Your task to perform on an android device: check android version Image 0: 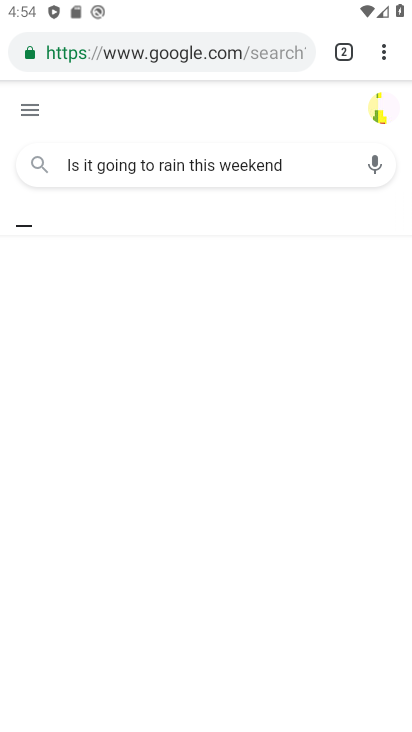
Step 0: press home button
Your task to perform on an android device: check android version Image 1: 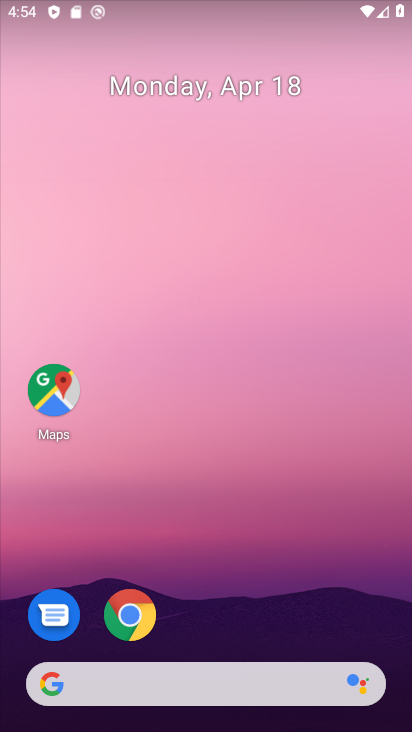
Step 1: drag from (224, 630) to (230, 74)
Your task to perform on an android device: check android version Image 2: 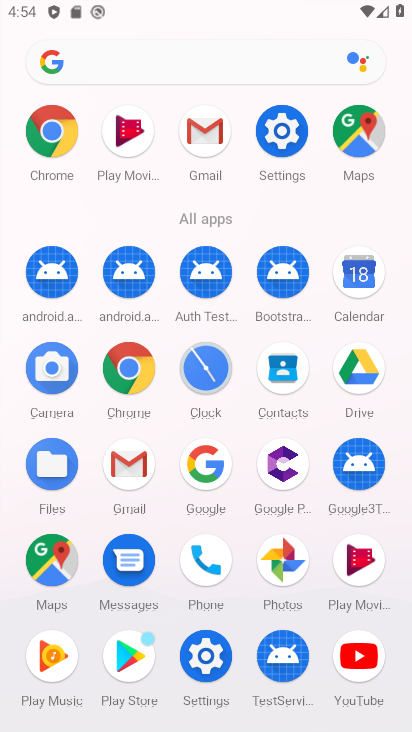
Step 2: click (274, 133)
Your task to perform on an android device: check android version Image 3: 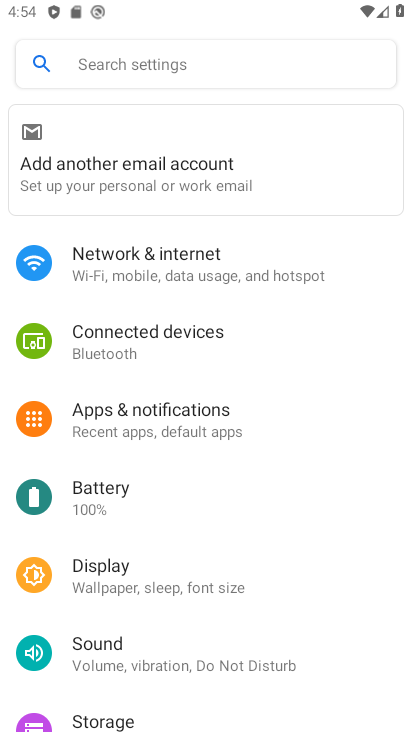
Step 3: drag from (324, 695) to (345, 257)
Your task to perform on an android device: check android version Image 4: 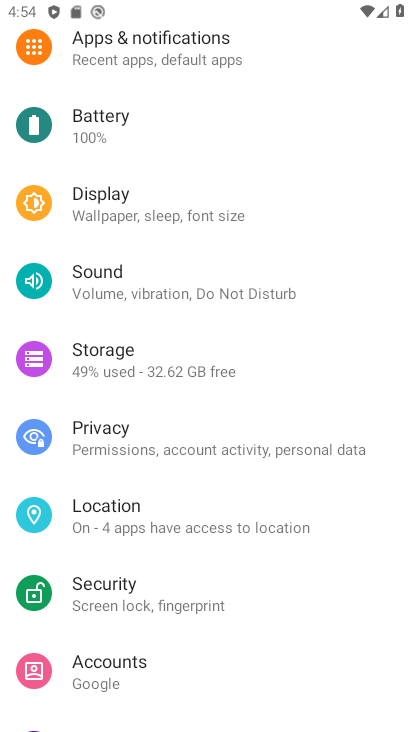
Step 4: drag from (289, 670) to (311, 229)
Your task to perform on an android device: check android version Image 5: 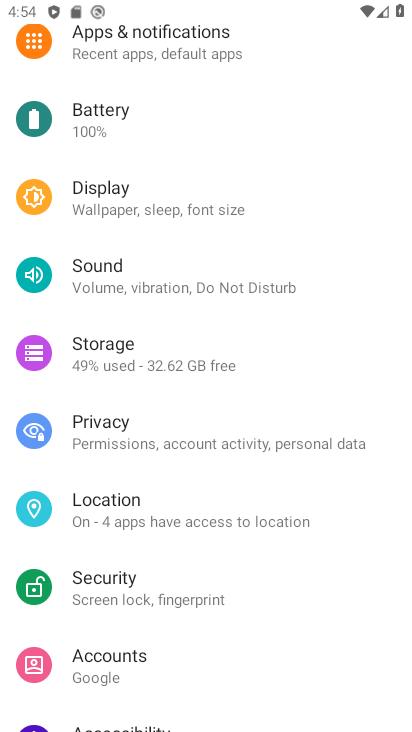
Step 5: drag from (328, 655) to (330, 246)
Your task to perform on an android device: check android version Image 6: 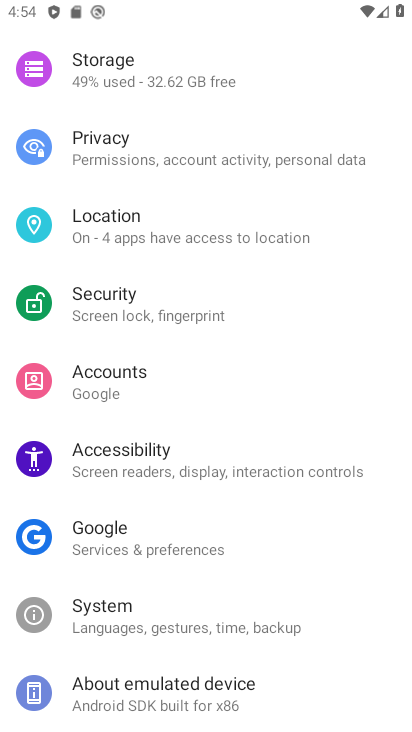
Step 6: click (123, 696)
Your task to perform on an android device: check android version Image 7: 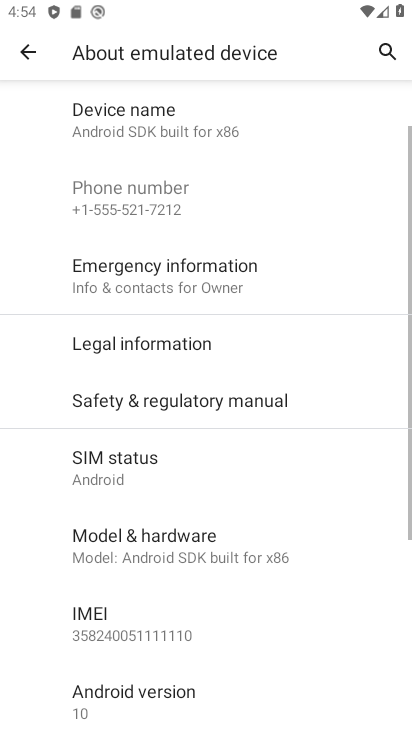
Step 7: click (153, 693)
Your task to perform on an android device: check android version Image 8: 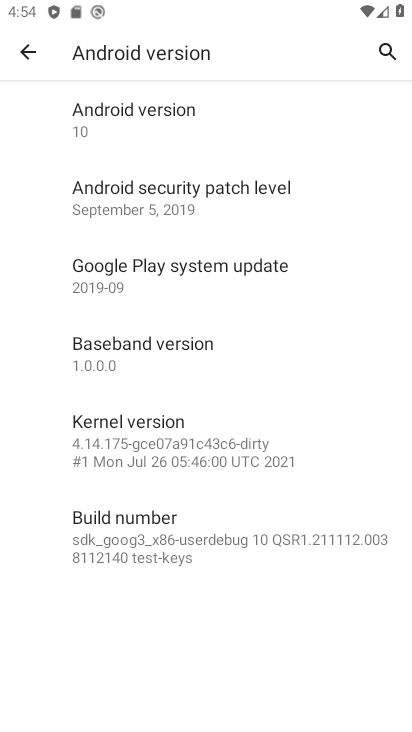
Step 8: task complete